Your task to perform on an android device: turn off sleep mode Image 0: 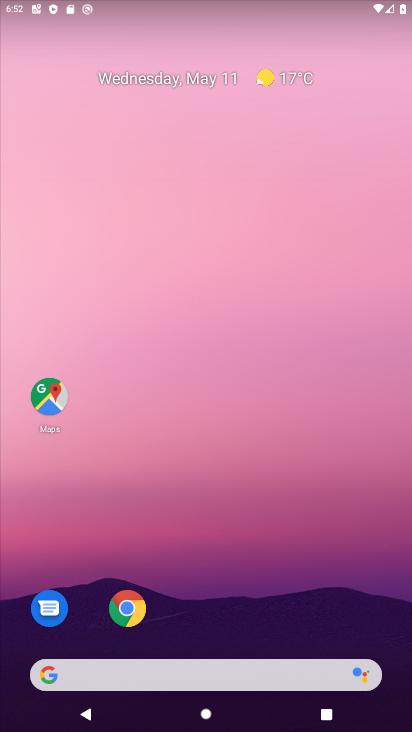
Step 0: drag from (249, 636) to (253, 43)
Your task to perform on an android device: turn off sleep mode Image 1: 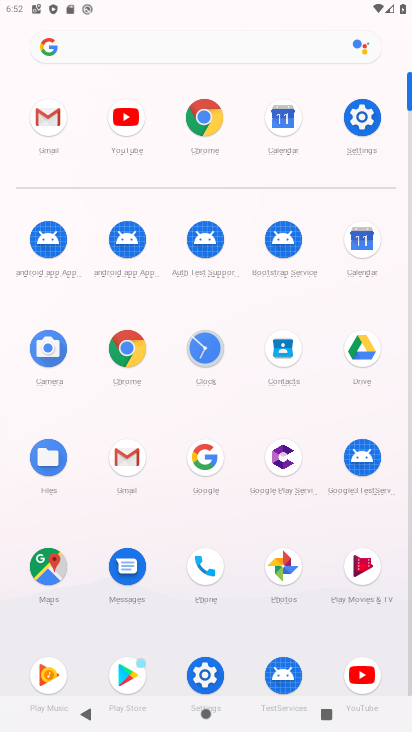
Step 1: click (357, 145)
Your task to perform on an android device: turn off sleep mode Image 2: 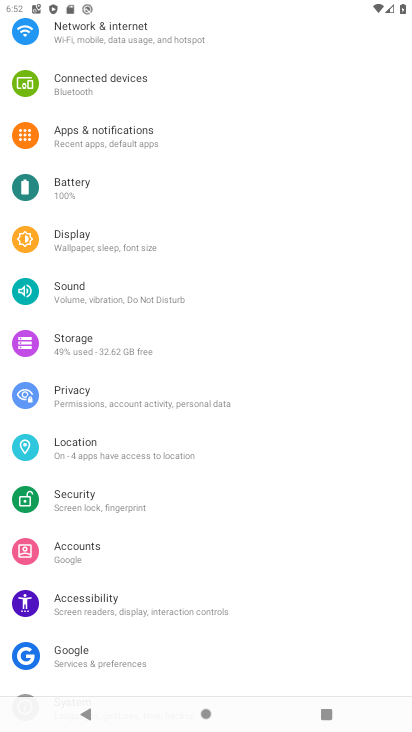
Step 2: click (147, 231)
Your task to perform on an android device: turn off sleep mode Image 3: 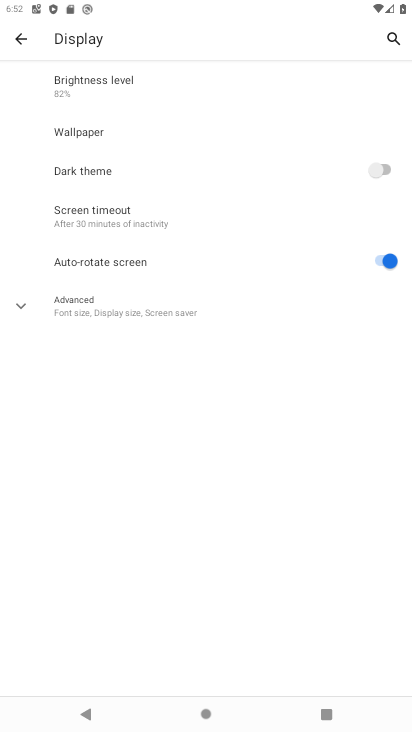
Step 3: click (178, 234)
Your task to perform on an android device: turn off sleep mode Image 4: 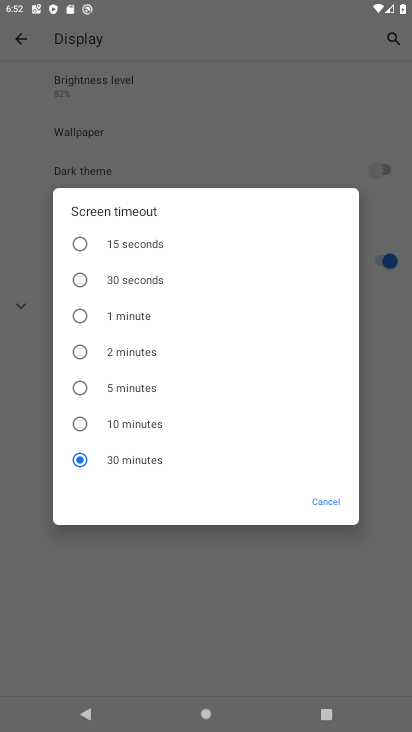
Step 4: click (168, 267)
Your task to perform on an android device: turn off sleep mode Image 5: 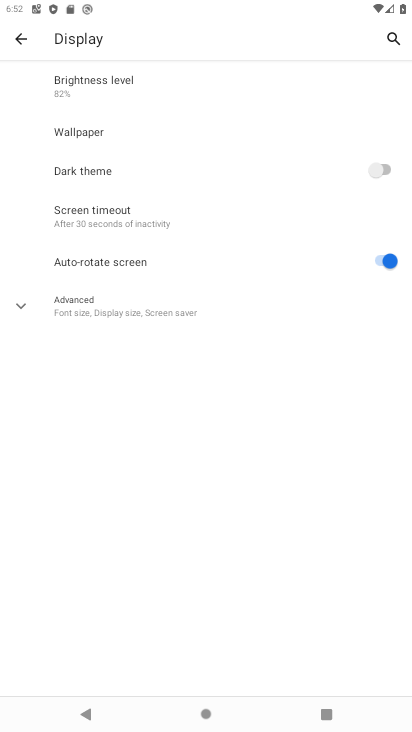
Step 5: click (365, 167)
Your task to perform on an android device: turn off sleep mode Image 6: 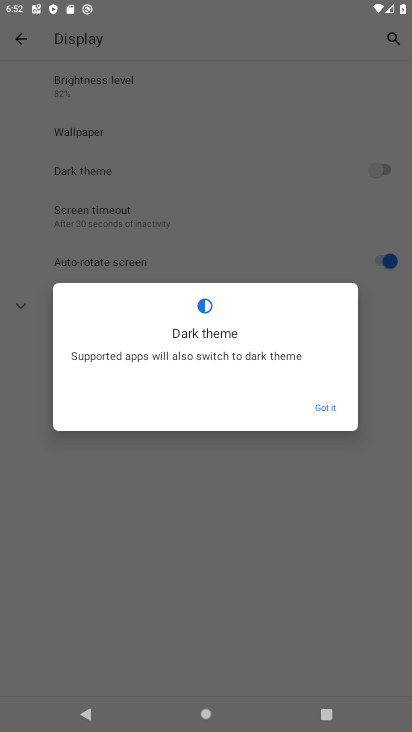
Step 6: task complete